Your task to perform on an android device: turn pop-ups on in chrome Image 0: 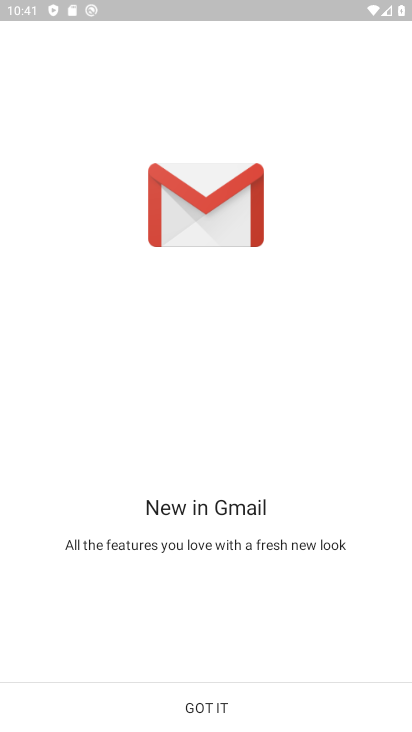
Step 0: press home button
Your task to perform on an android device: turn pop-ups on in chrome Image 1: 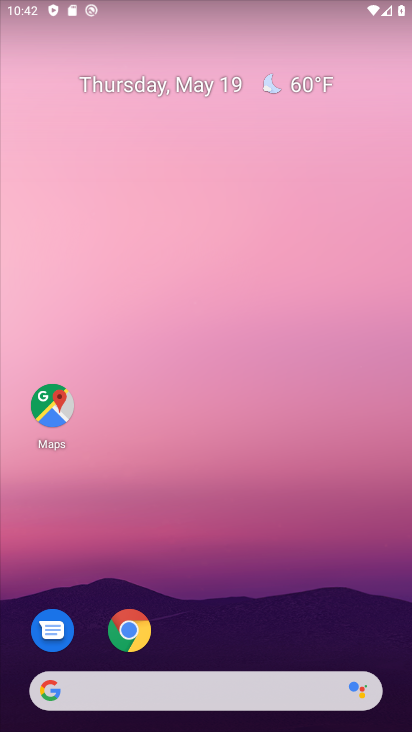
Step 1: click (140, 641)
Your task to perform on an android device: turn pop-ups on in chrome Image 2: 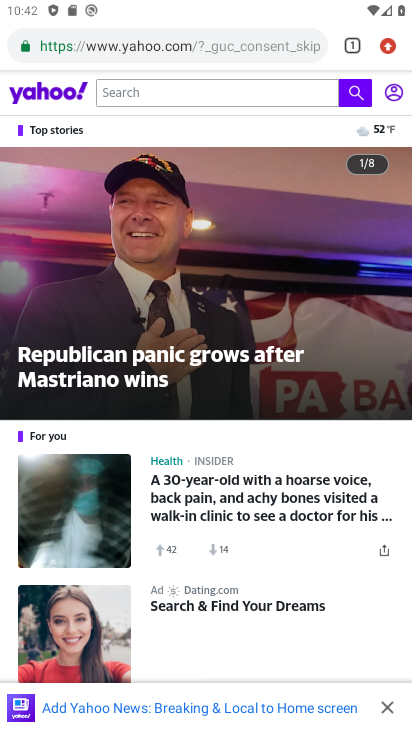
Step 2: click (379, 60)
Your task to perform on an android device: turn pop-ups on in chrome Image 3: 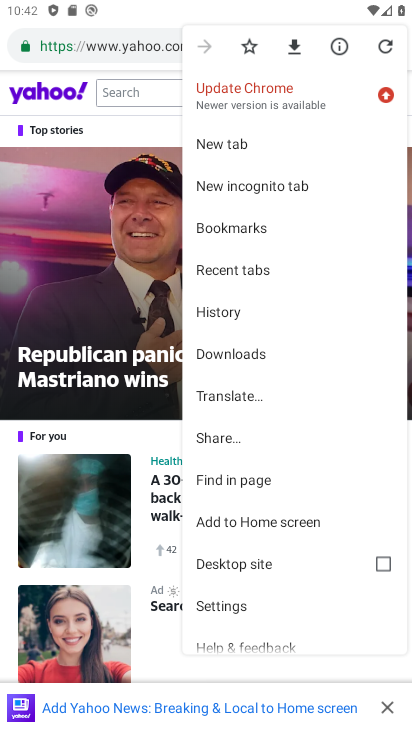
Step 3: click (296, 609)
Your task to perform on an android device: turn pop-ups on in chrome Image 4: 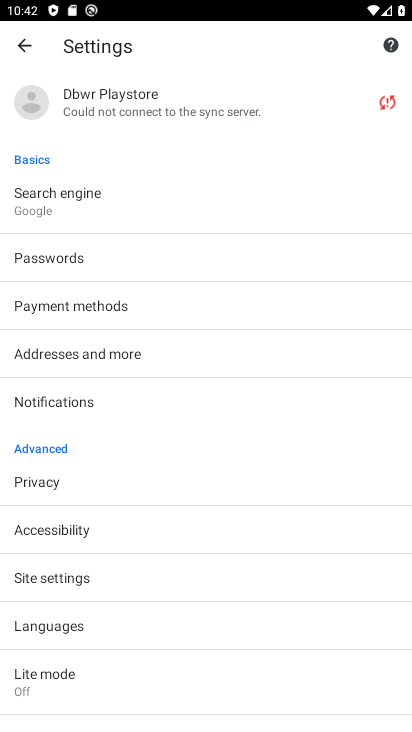
Step 4: click (288, 582)
Your task to perform on an android device: turn pop-ups on in chrome Image 5: 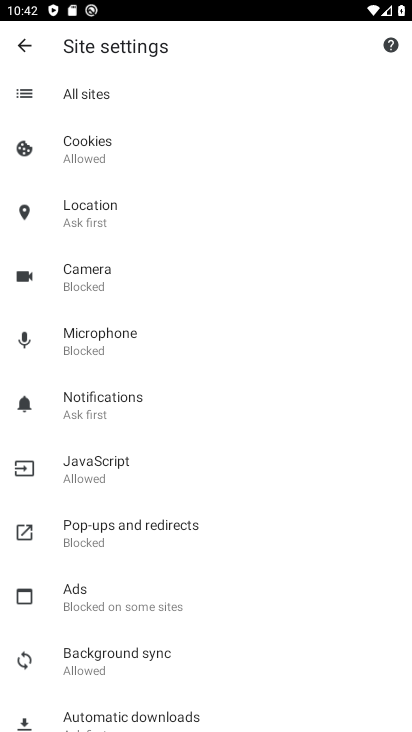
Step 5: click (245, 528)
Your task to perform on an android device: turn pop-ups on in chrome Image 6: 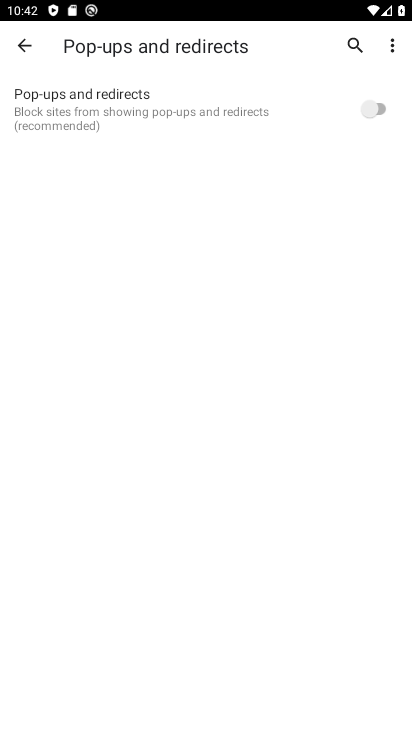
Step 6: click (381, 118)
Your task to perform on an android device: turn pop-ups on in chrome Image 7: 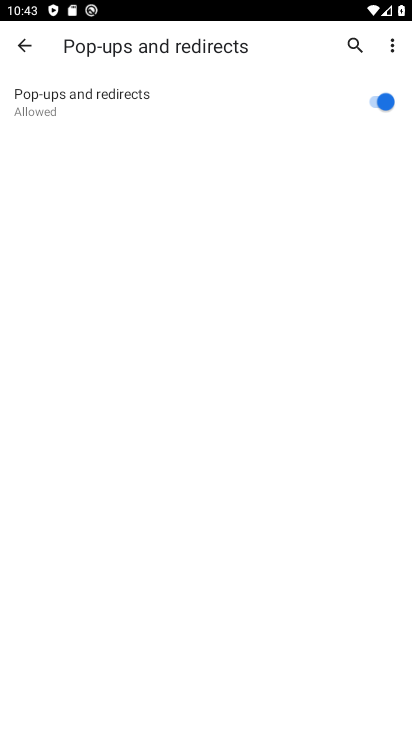
Step 7: task complete